Your task to perform on an android device: What's on my calendar today? Image 0: 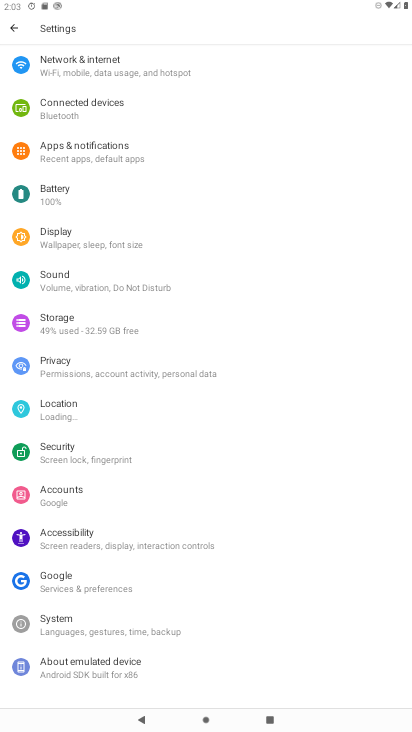
Step 0: press home button
Your task to perform on an android device: What's on my calendar today? Image 1: 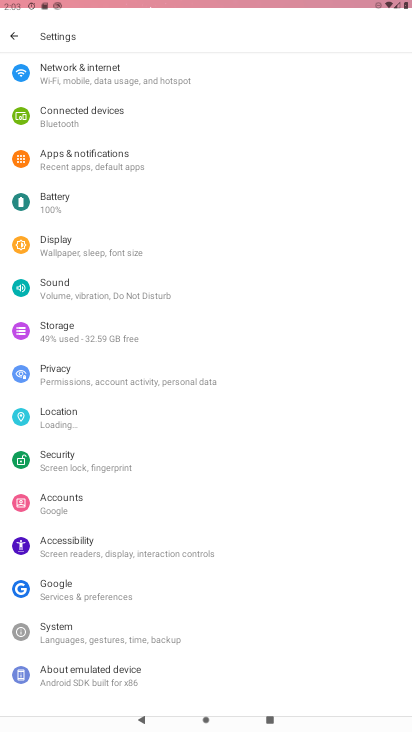
Step 1: drag from (388, 656) to (190, 15)
Your task to perform on an android device: What's on my calendar today? Image 2: 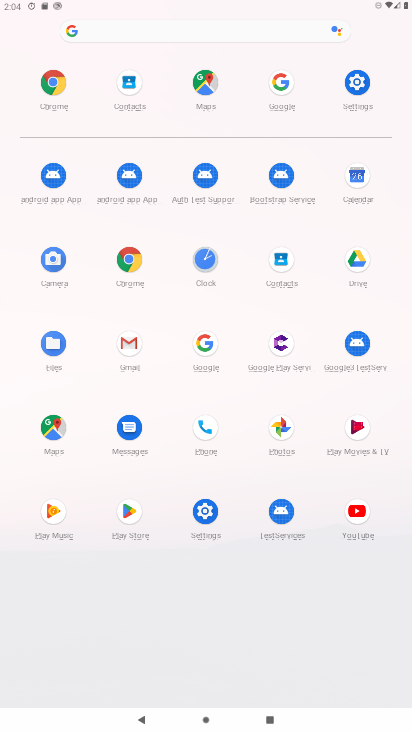
Step 2: click (362, 180)
Your task to perform on an android device: What's on my calendar today? Image 3: 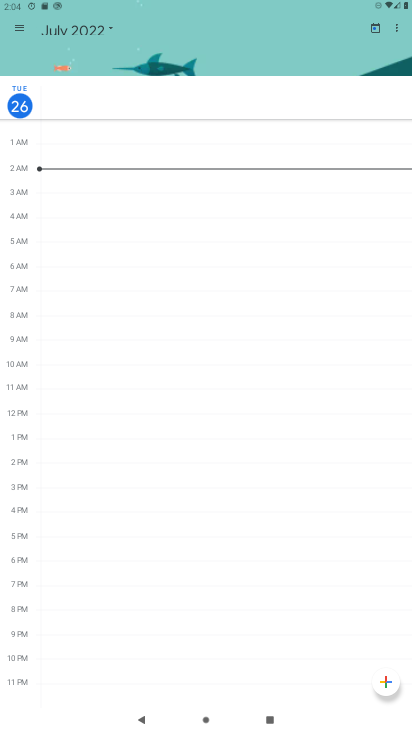
Step 3: task complete